Your task to perform on an android device: open the mobile data screen to see how much data has been used Image 0: 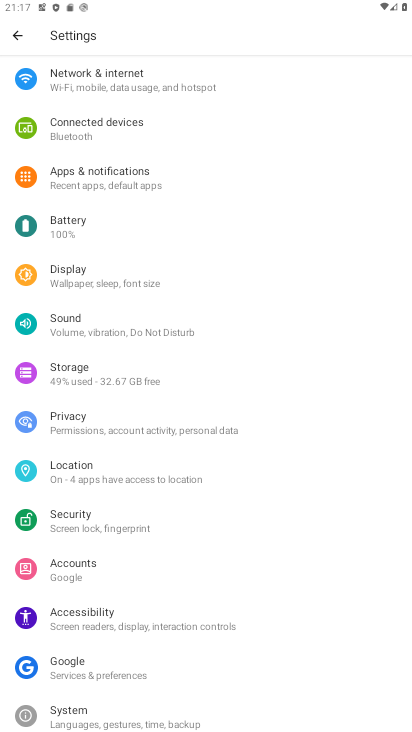
Step 0: press home button
Your task to perform on an android device: open the mobile data screen to see how much data has been used Image 1: 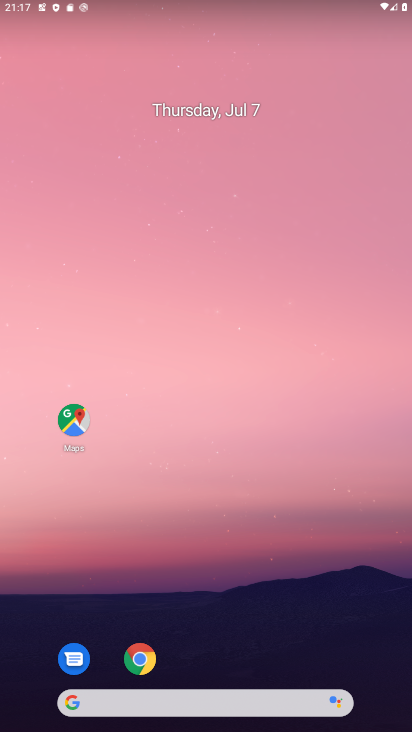
Step 1: drag from (251, 549) to (292, 132)
Your task to perform on an android device: open the mobile data screen to see how much data has been used Image 2: 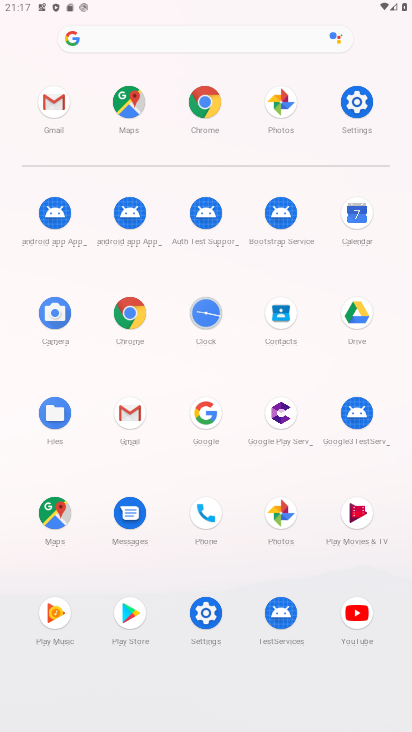
Step 2: click (202, 609)
Your task to perform on an android device: open the mobile data screen to see how much data has been used Image 3: 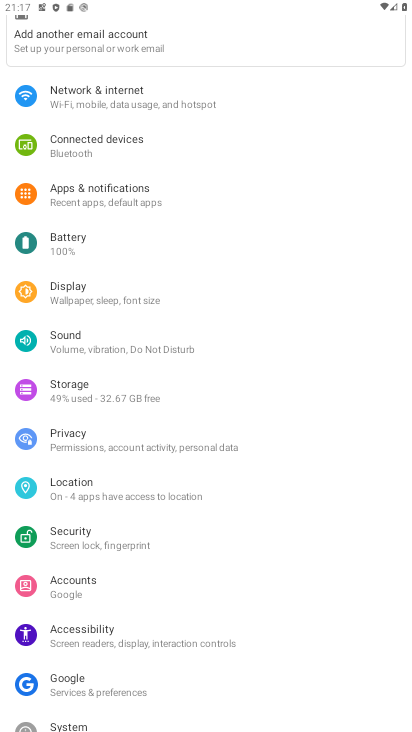
Step 3: click (135, 94)
Your task to perform on an android device: open the mobile data screen to see how much data has been used Image 4: 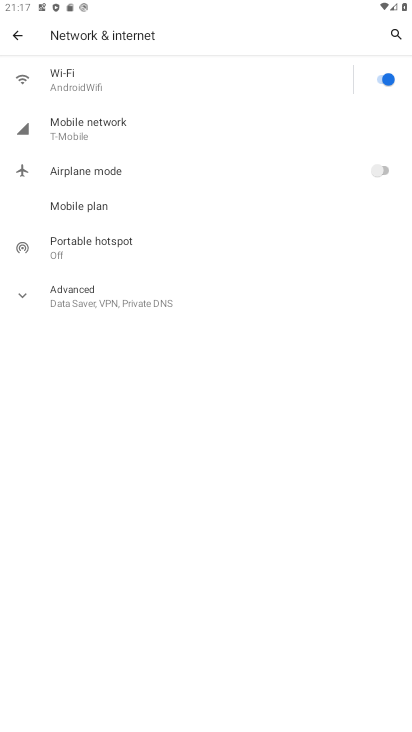
Step 4: click (125, 138)
Your task to perform on an android device: open the mobile data screen to see how much data has been used Image 5: 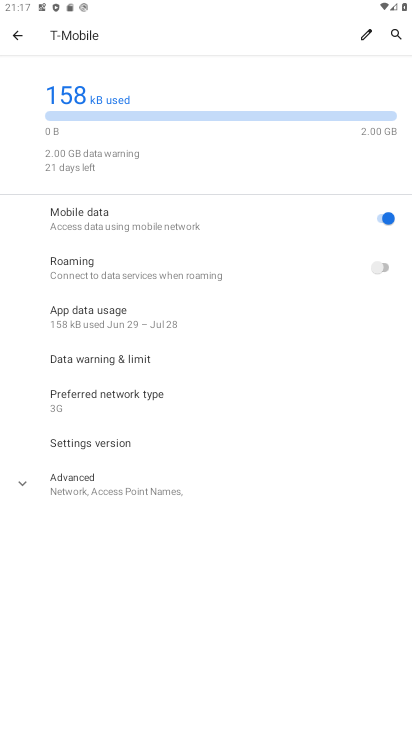
Step 5: click (136, 313)
Your task to perform on an android device: open the mobile data screen to see how much data has been used Image 6: 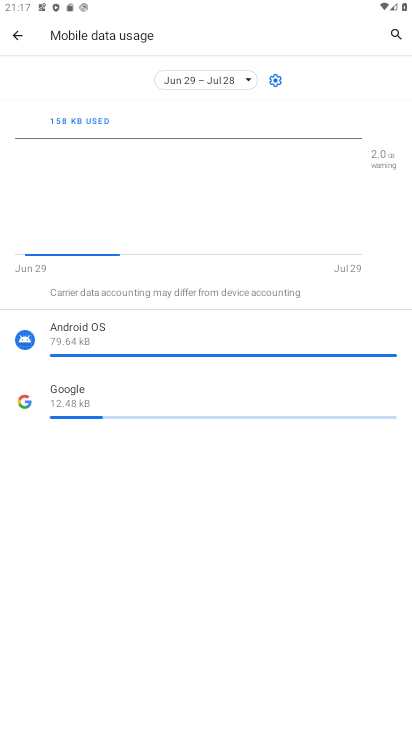
Step 6: task complete